Your task to perform on an android device: Open calendar and show me the first week of next month Image 0: 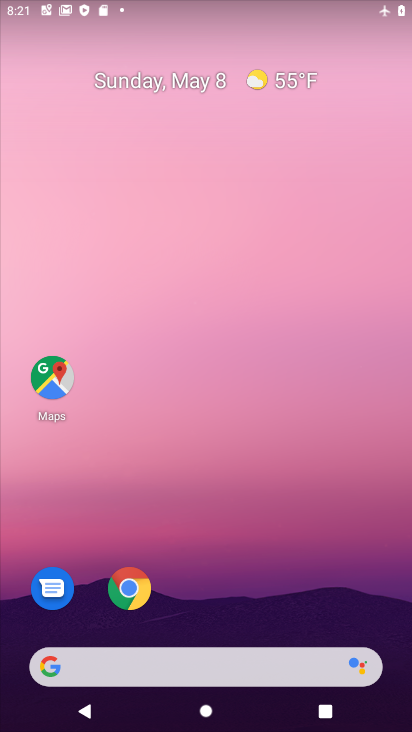
Step 0: drag from (270, 619) to (188, 30)
Your task to perform on an android device: Open calendar and show me the first week of next month Image 1: 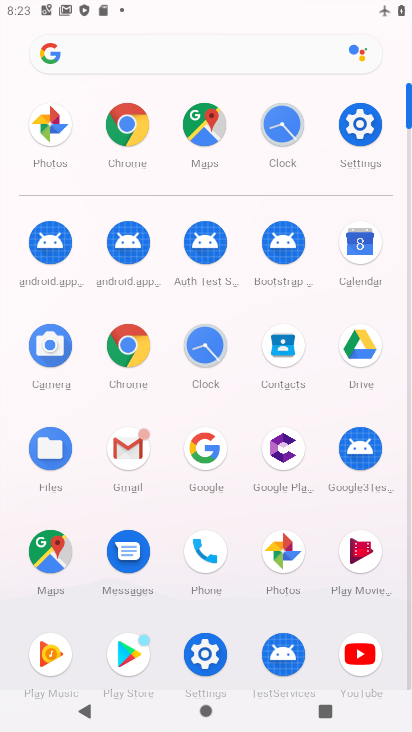
Step 1: click (350, 255)
Your task to perform on an android device: Open calendar and show me the first week of next month Image 2: 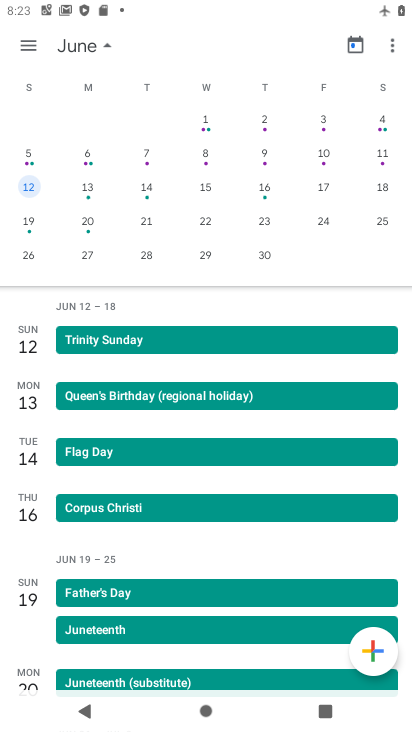
Step 2: drag from (347, 246) to (2, 202)
Your task to perform on an android device: Open calendar and show me the first week of next month Image 3: 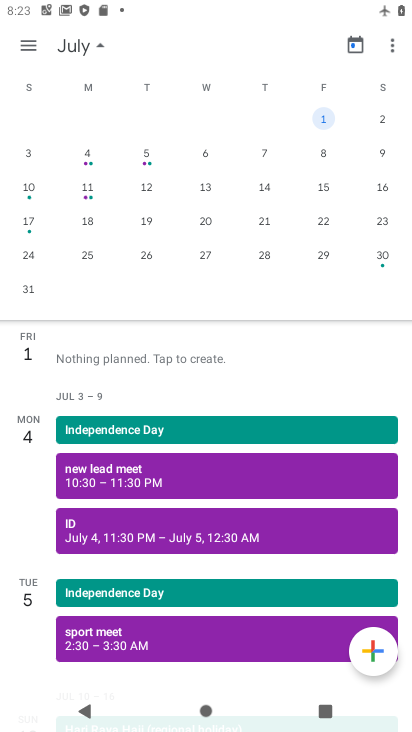
Step 3: click (83, 157)
Your task to perform on an android device: Open calendar and show me the first week of next month Image 4: 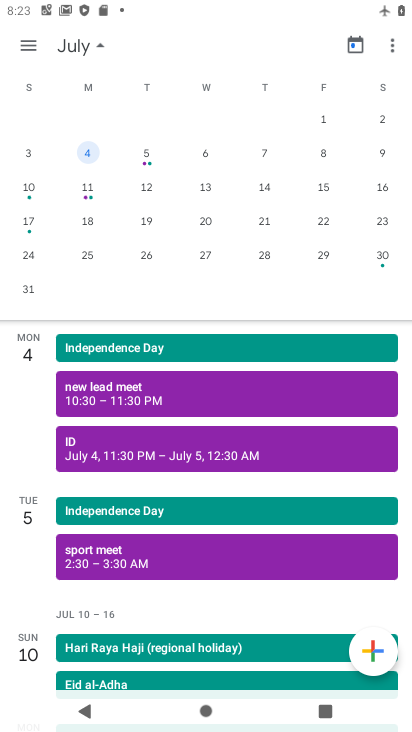
Step 4: task complete